Your task to perform on an android device: Open Wikipedia Image 0: 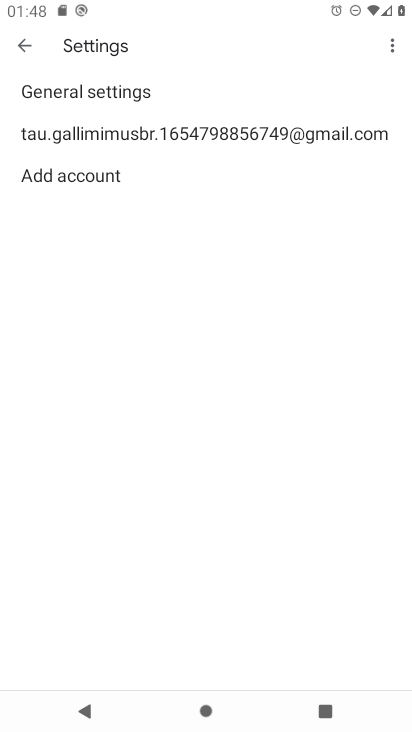
Step 0: press home button
Your task to perform on an android device: Open Wikipedia Image 1: 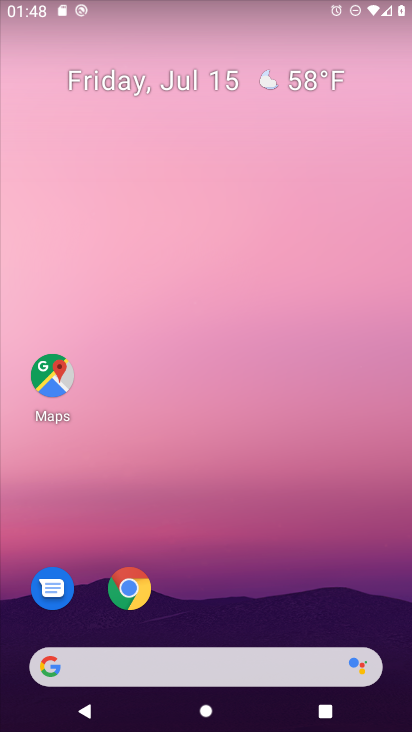
Step 1: click (132, 592)
Your task to perform on an android device: Open Wikipedia Image 2: 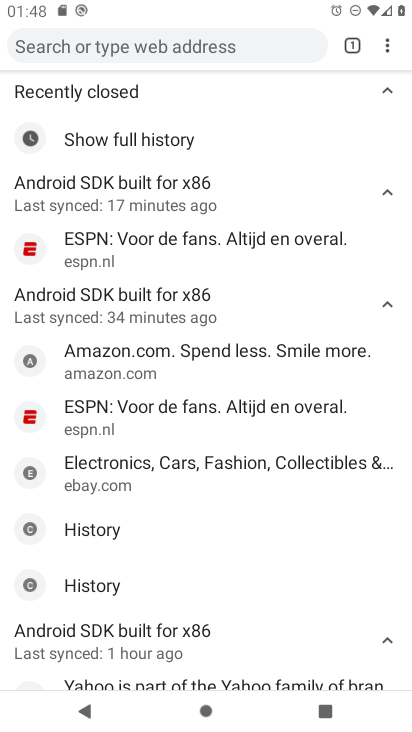
Step 2: click (148, 40)
Your task to perform on an android device: Open Wikipedia Image 3: 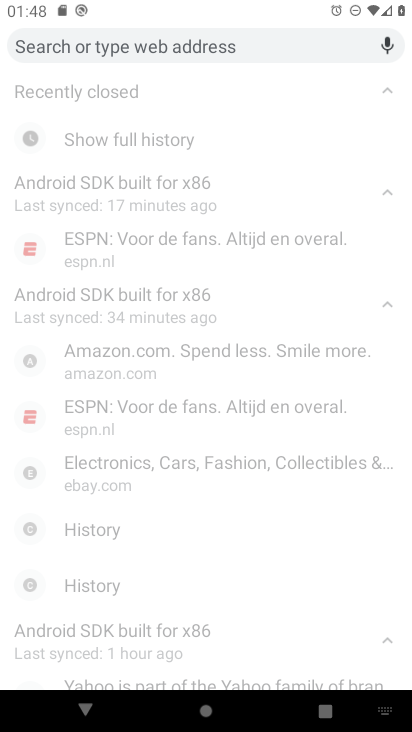
Step 3: type "Wikipedia"
Your task to perform on an android device: Open Wikipedia Image 4: 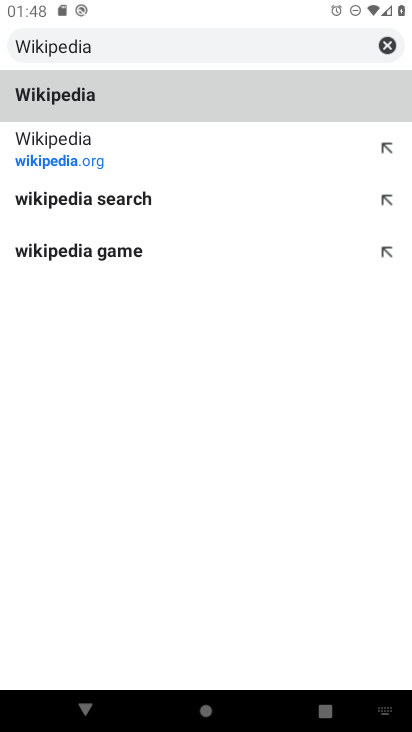
Step 4: click (52, 140)
Your task to perform on an android device: Open Wikipedia Image 5: 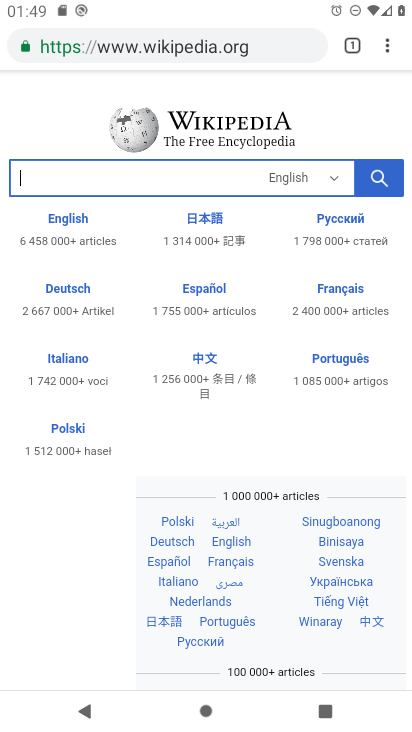
Step 5: task complete